Your task to perform on an android device: Go to location settings Image 0: 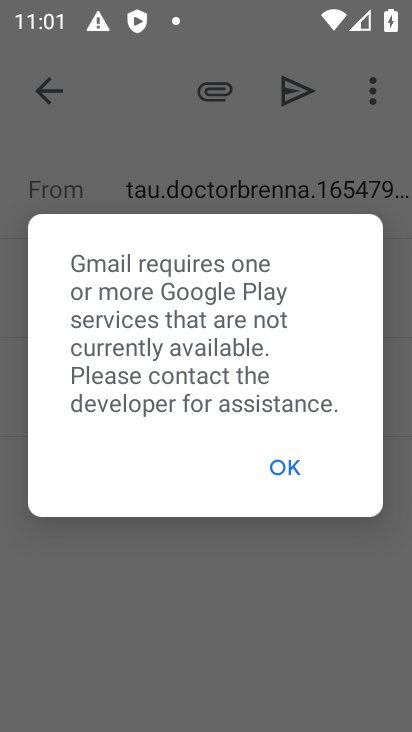
Step 0: click (295, 460)
Your task to perform on an android device: Go to location settings Image 1: 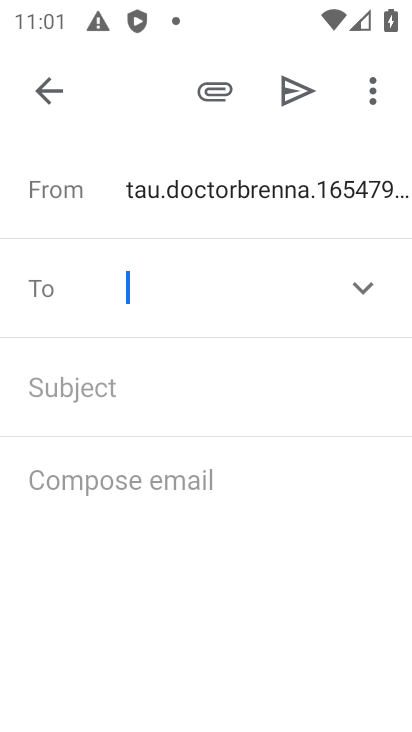
Step 1: press back button
Your task to perform on an android device: Go to location settings Image 2: 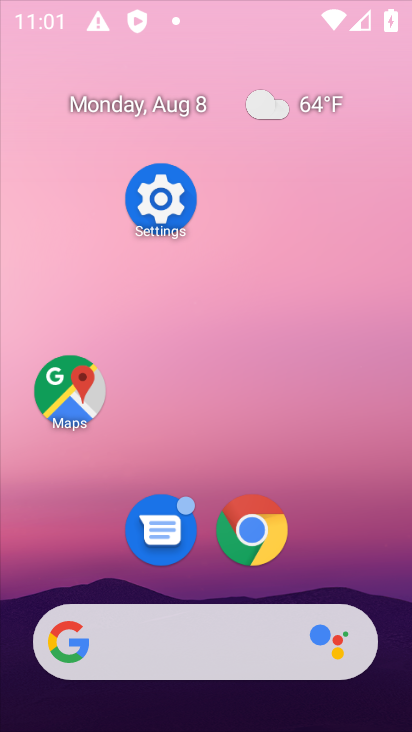
Step 2: click (48, 93)
Your task to perform on an android device: Go to location settings Image 3: 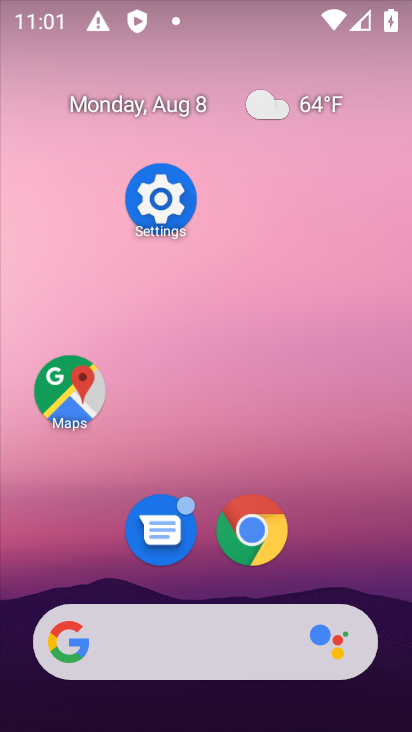
Step 3: click (118, 206)
Your task to perform on an android device: Go to location settings Image 4: 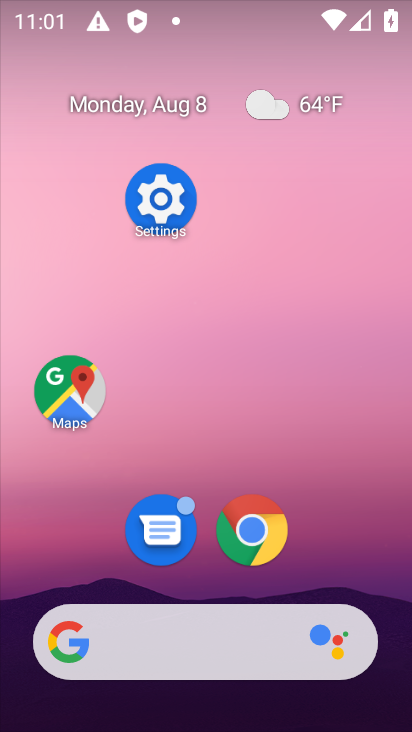
Step 4: drag from (190, 599) to (210, 272)
Your task to perform on an android device: Go to location settings Image 5: 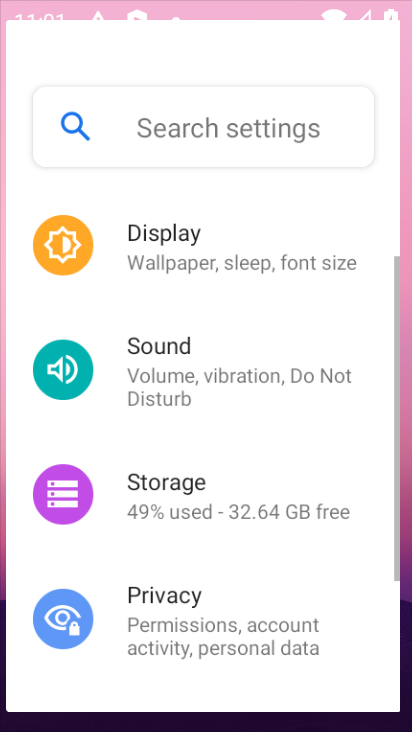
Step 5: drag from (221, 637) to (149, 195)
Your task to perform on an android device: Go to location settings Image 6: 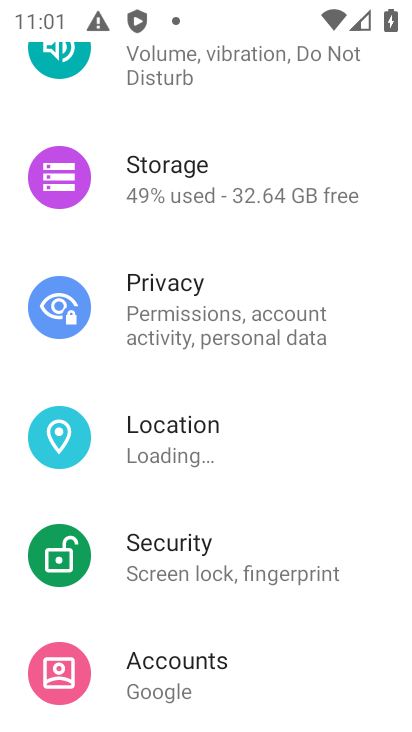
Step 6: click (164, 439)
Your task to perform on an android device: Go to location settings Image 7: 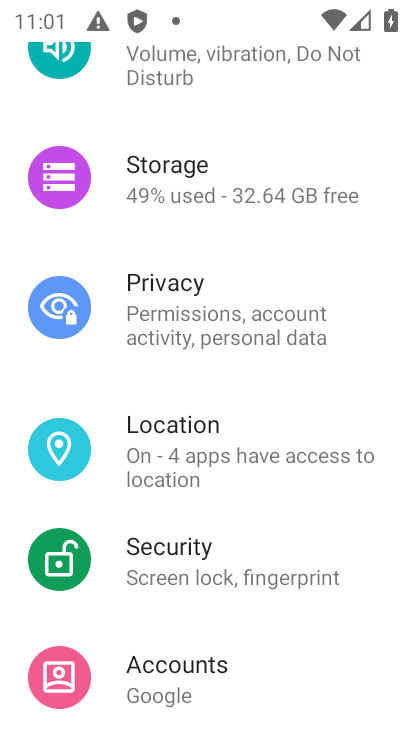
Step 7: click (165, 439)
Your task to perform on an android device: Go to location settings Image 8: 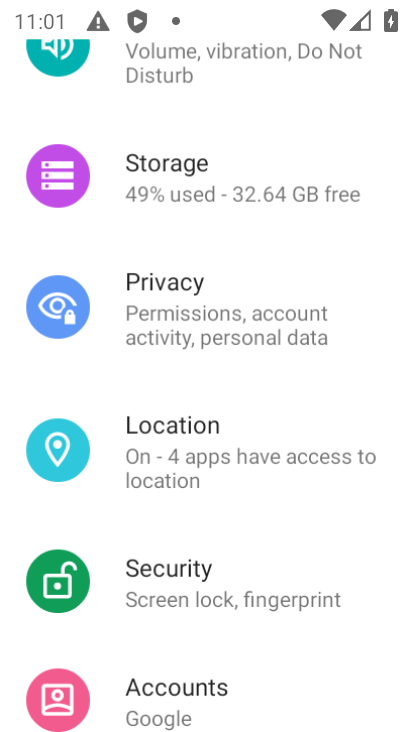
Step 8: click (165, 439)
Your task to perform on an android device: Go to location settings Image 9: 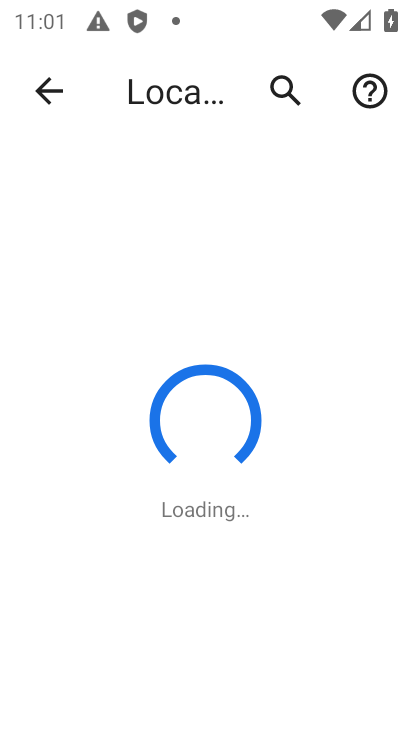
Step 9: click (46, 86)
Your task to perform on an android device: Go to location settings Image 10: 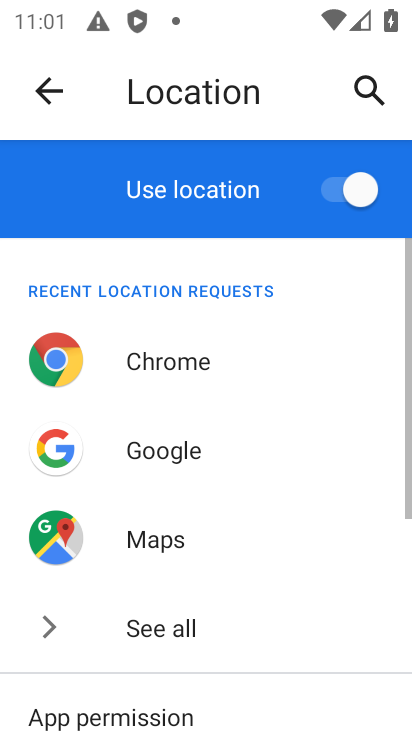
Step 10: task complete